Your task to perform on an android device: Open calendar and show me the first week of next month Image 0: 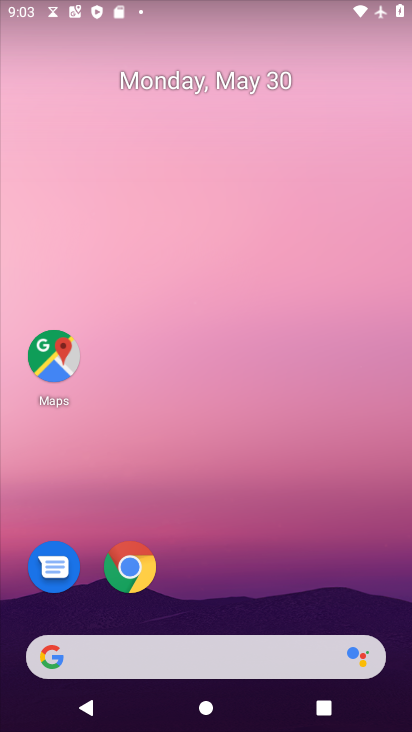
Step 0: drag from (229, 612) to (225, 109)
Your task to perform on an android device: Open calendar and show me the first week of next month Image 1: 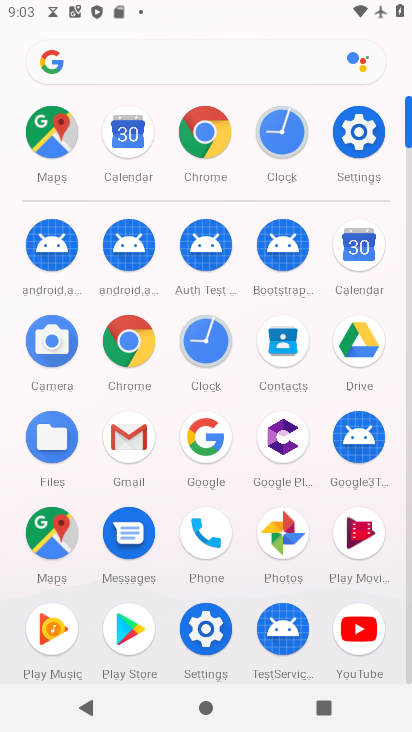
Step 1: click (358, 241)
Your task to perform on an android device: Open calendar and show me the first week of next month Image 2: 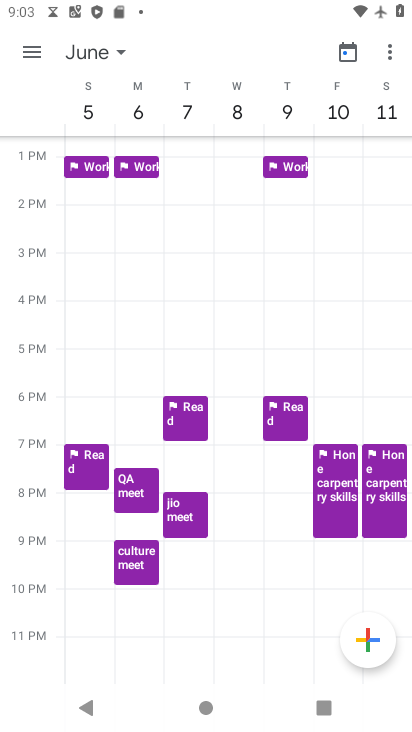
Step 2: drag from (116, 105) to (347, 80)
Your task to perform on an android device: Open calendar and show me the first week of next month Image 3: 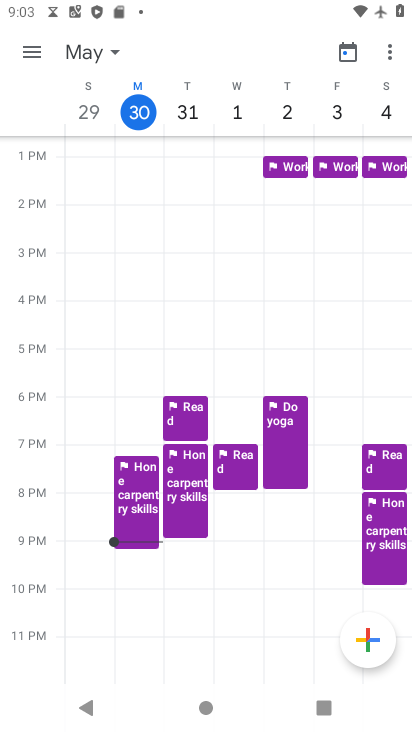
Step 3: click (241, 113)
Your task to perform on an android device: Open calendar and show me the first week of next month Image 4: 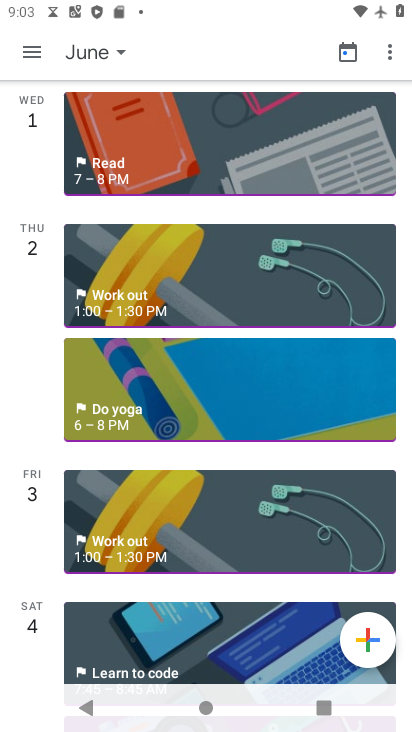
Step 4: click (41, 56)
Your task to perform on an android device: Open calendar and show me the first week of next month Image 5: 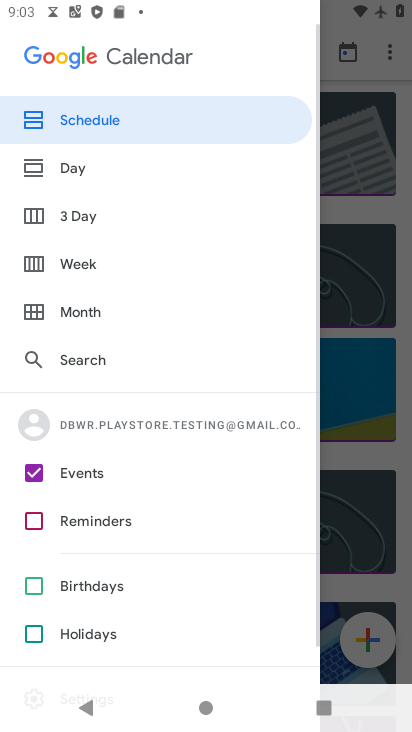
Step 5: click (129, 270)
Your task to perform on an android device: Open calendar and show me the first week of next month Image 6: 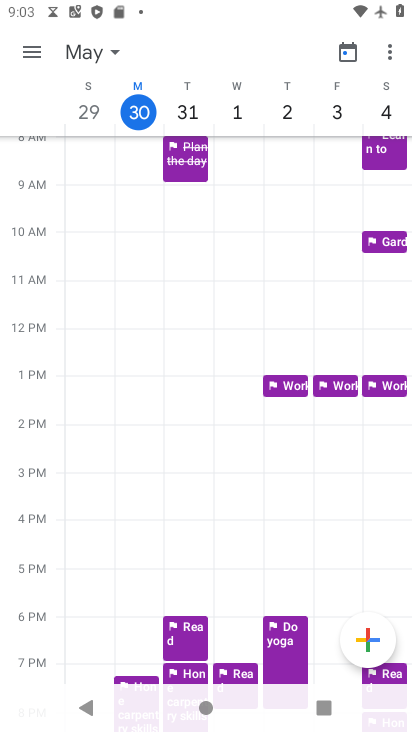
Step 6: click (240, 113)
Your task to perform on an android device: Open calendar and show me the first week of next month Image 7: 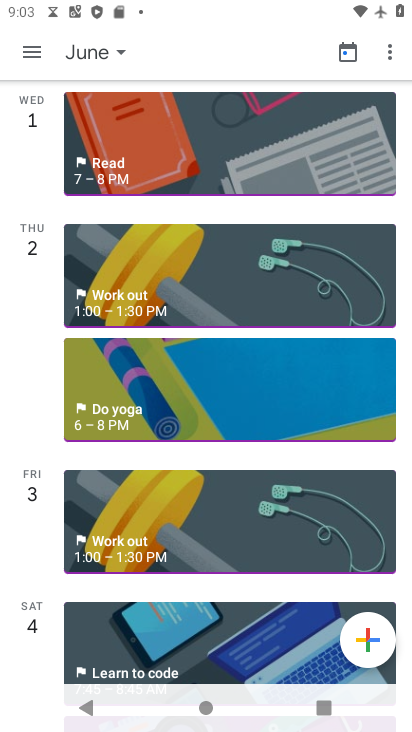
Step 7: click (43, 58)
Your task to perform on an android device: Open calendar and show me the first week of next month Image 8: 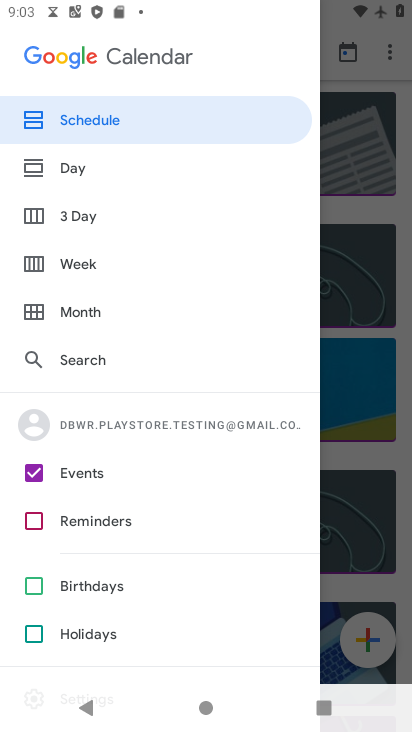
Step 8: click (82, 259)
Your task to perform on an android device: Open calendar and show me the first week of next month Image 9: 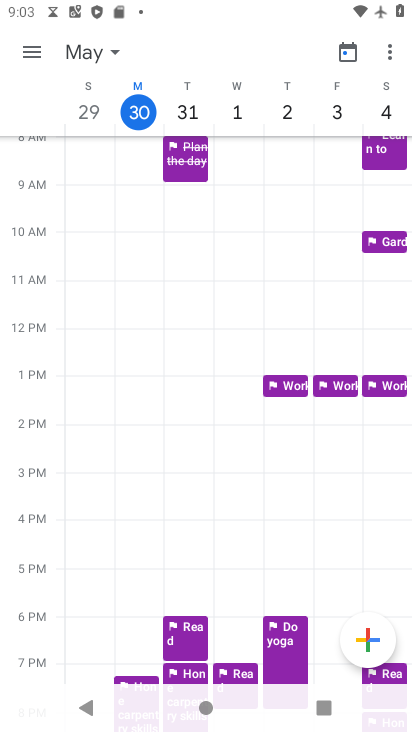
Step 9: click (108, 52)
Your task to perform on an android device: Open calendar and show me the first week of next month Image 10: 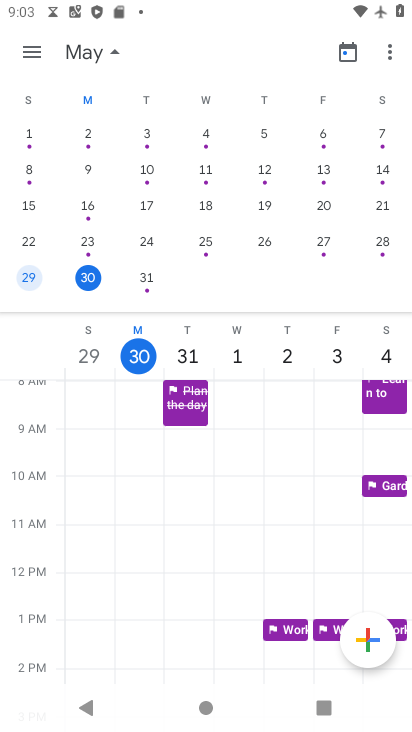
Step 10: drag from (337, 238) to (35, 207)
Your task to perform on an android device: Open calendar and show me the first week of next month Image 11: 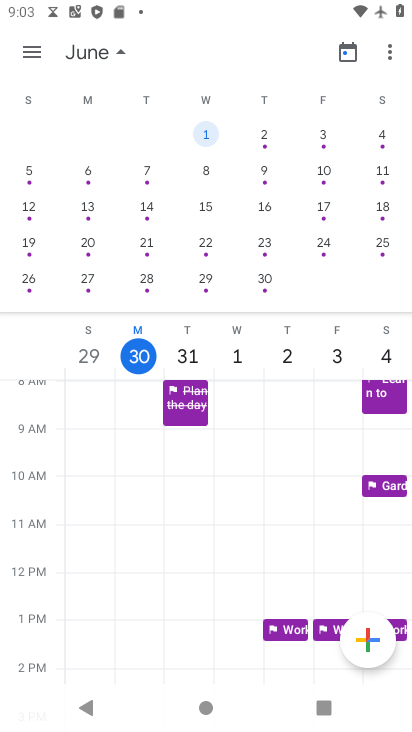
Step 11: click (208, 133)
Your task to perform on an android device: Open calendar and show me the first week of next month Image 12: 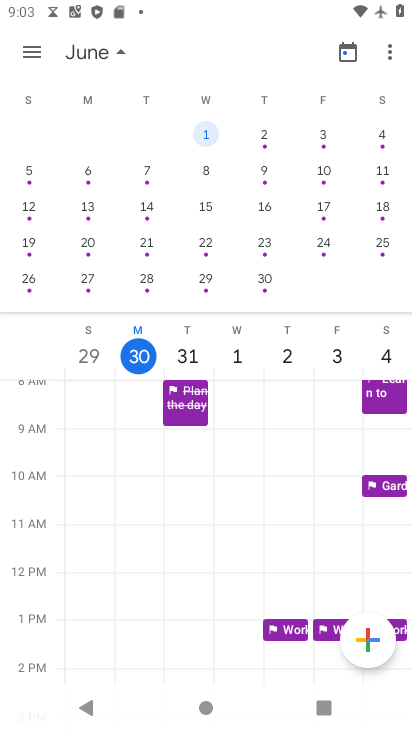
Step 12: task complete